Your task to perform on an android device: Go to sound settings Image 0: 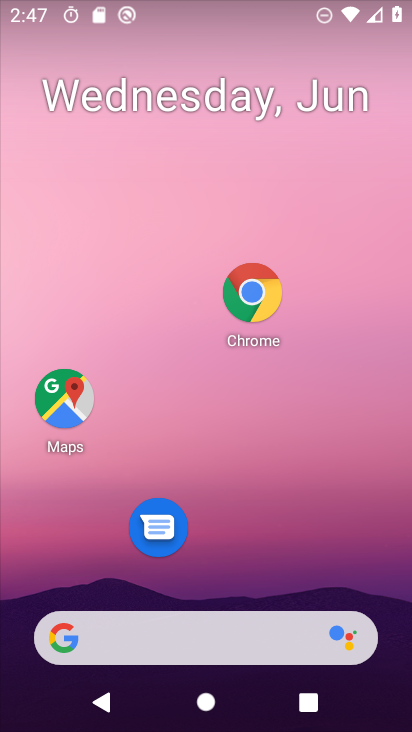
Step 0: click (311, 408)
Your task to perform on an android device: Go to sound settings Image 1: 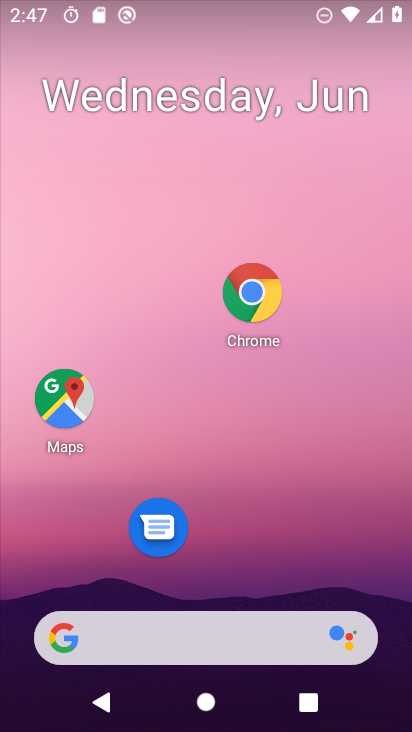
Step 1: drag from (277, 398) to (306, 99)
Your task to perform on an android device: Go to sound settings Image 2: 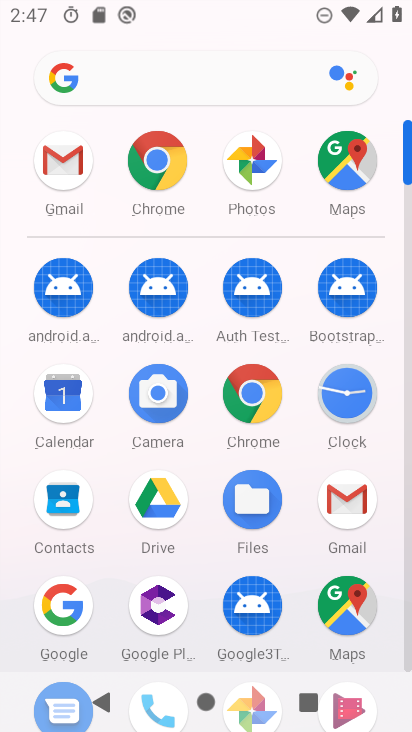
Step 2: drag from (218, 286) to (239, 119)
Your task to perform on an android device: Go to sound settings Image 3: 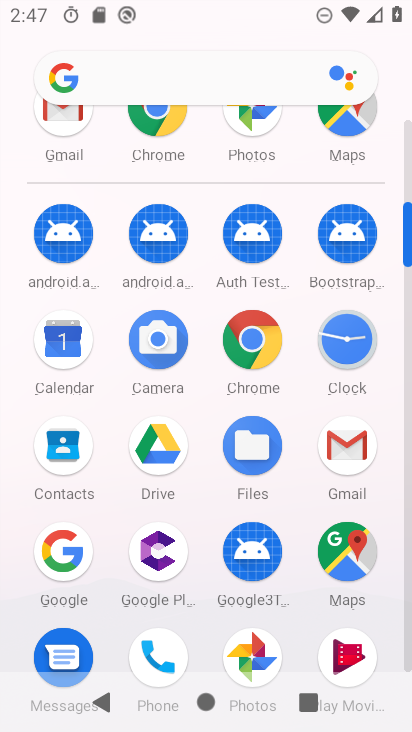
Step 3: drag from (235, 413) to (261, 98)
Your task to perform on an android device: Go to sound settings Image 4: 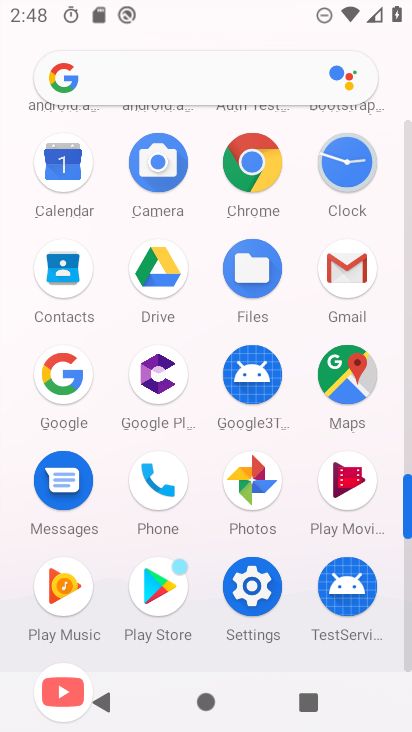
Step 4: click (253, 607)
Your task to perform on an android device: Go to sound settings Image 5: 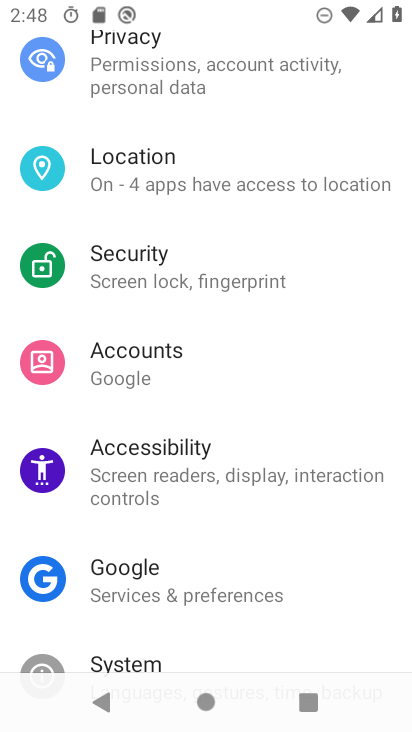
Step 5: drag from (144, 357) to (158, 671)
Your task to perform on an android device: Go to sound settings Image 6: 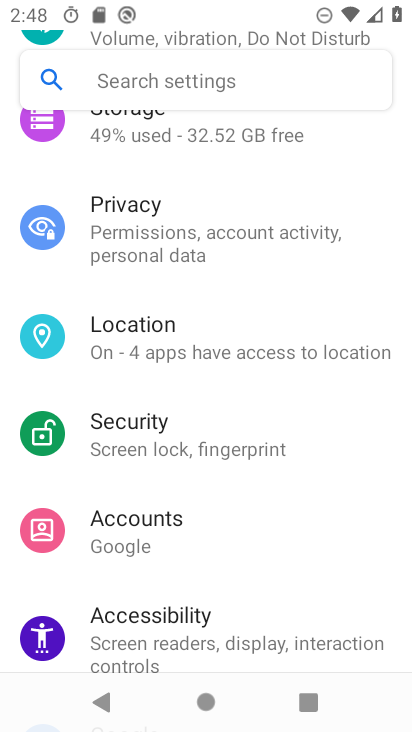
Step 6: drag from (185, 305) to (160, 637)
Your task to perform on an android device: Go to sound settings Image 7: 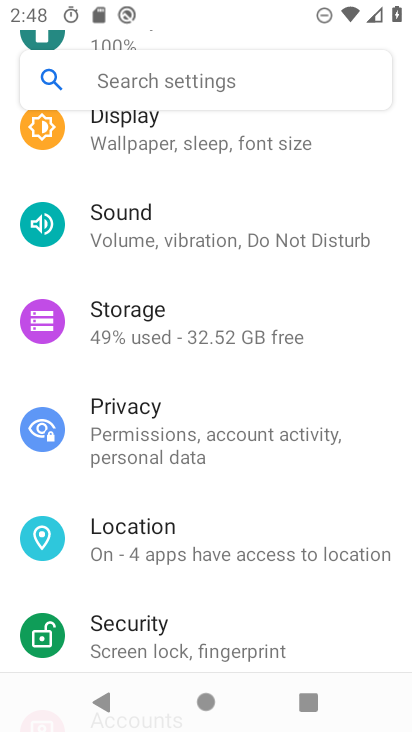
Step 7: drag from (145, 310) to (143, 561)
Your task to perform on an android device: Go to sound settings Image 8: 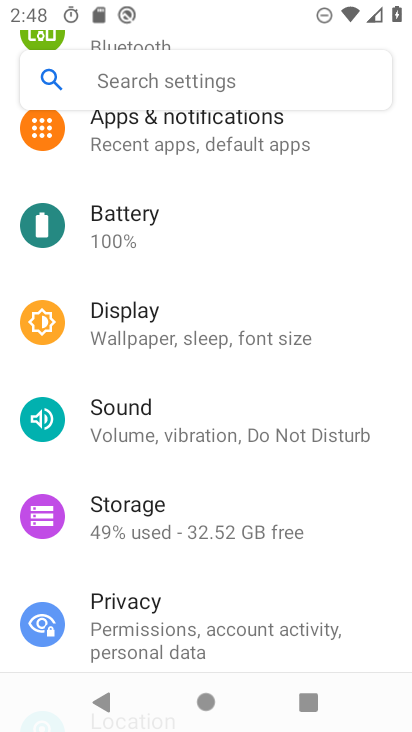
Step 8: click (168, 429)
Your task to perform on an android device: Go to sound settings Image 9: 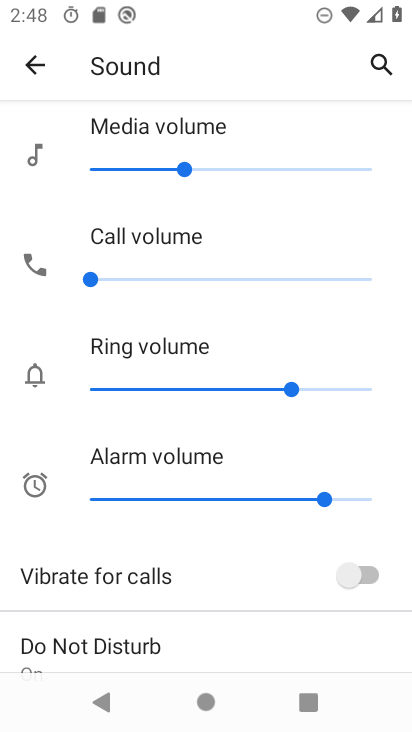
Step 9: task complete